Your task to perform on an android device: Open the Play Movies app and select the watchlist tab. Image 0: 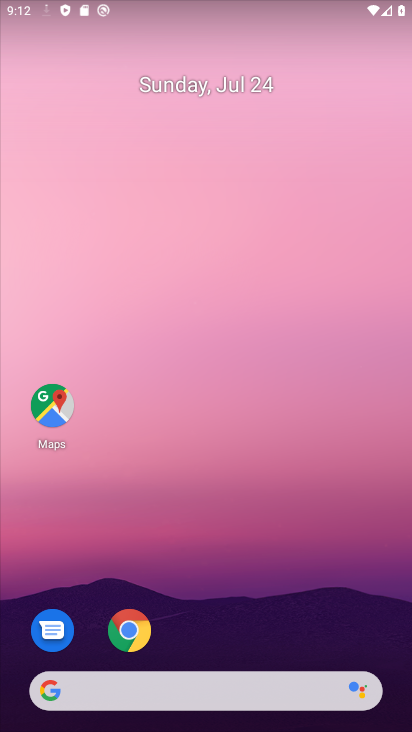
Step 0: drag from (220, 621) to (233, 121)
Your task to perform on an android device: Open the Play Movies app and select the watchlist tab. Image 1: 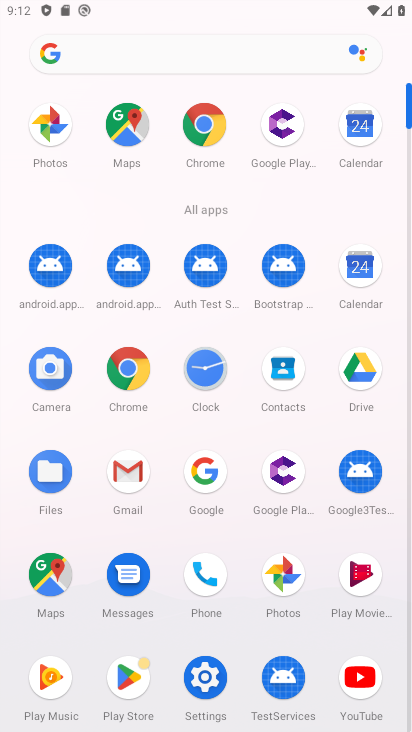
Step 1: click (361, 580)
Your task to perform on an android device: Open the Play Movies app and select the watchlist tab. Image 2: 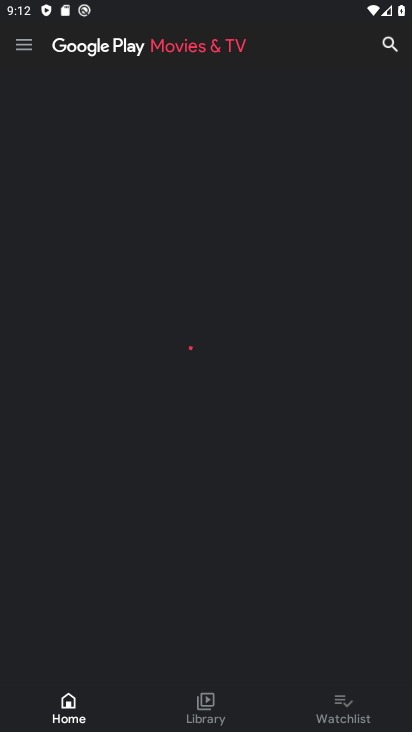
Step 2: click (354, 714)
Your task to perform on an android device: Open the Play Movies app and select the watchlist tab. Image 3: 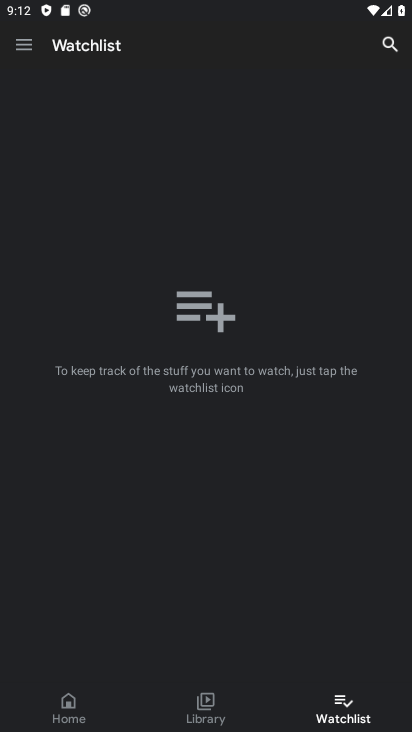
Step 3: task complete